Your task to perform on an android device: Open location settings Image 0: 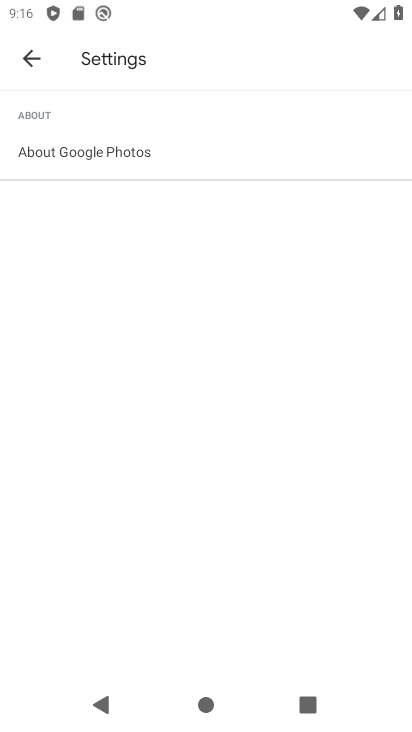
Step 0: press back button
Your task to perform on an android device: Open location settings Image 1: 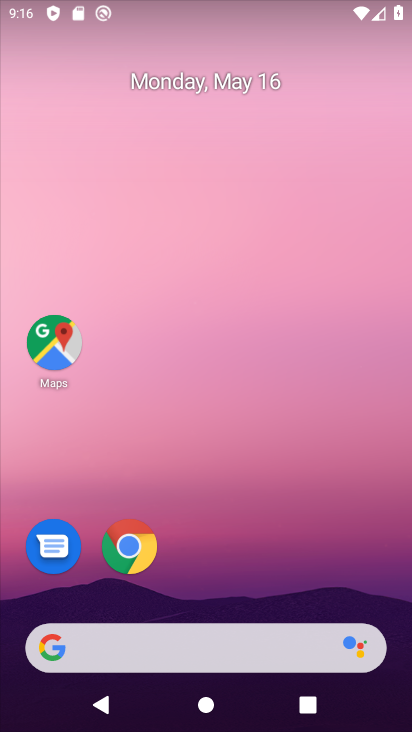
Step 1: drag from (273, 567) to (261, 238)
Your task to perform on an android device: Open location settings Image 2: 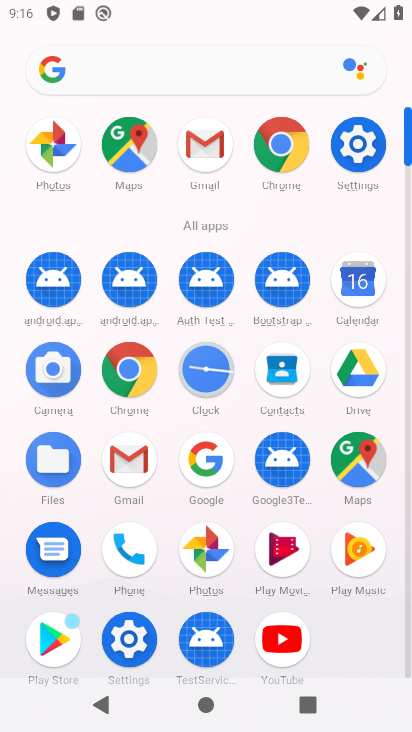
Step 2: click (359, 145)
Your task to perform on an android device: Open location settings Image 3: 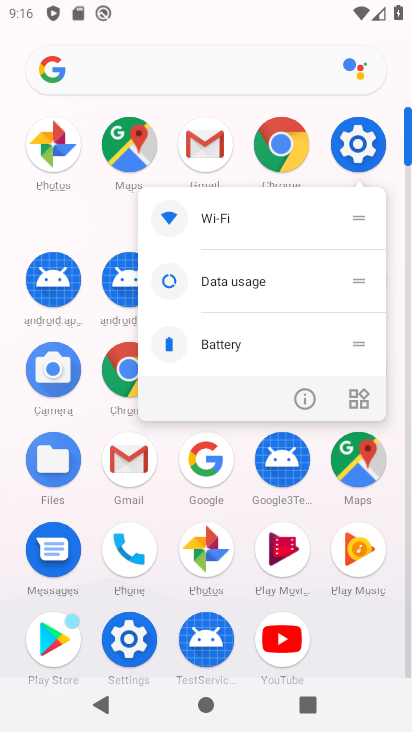
Step 3: click (359, 145)
Your task to perform on an android device: Open location settings Image 4: 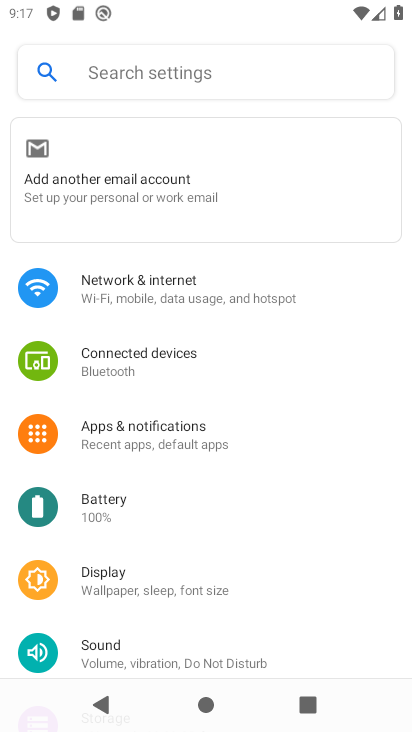
Step 4: drag from (170, 498) to (226, 426)
Your task to perform on an android device: Open location settings Image 5: 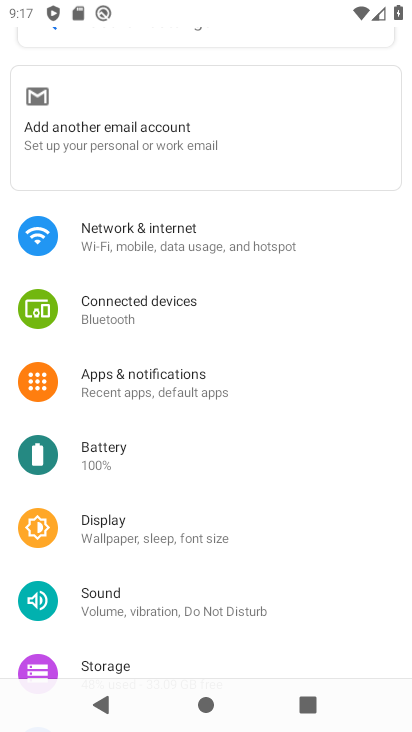
Step 5: drag from (179, 510) to (228, 438)
Your task to perform on an android device: Open location settings Image 6: 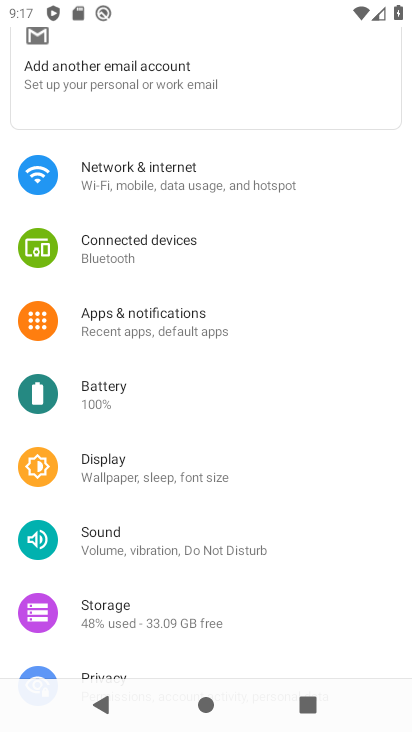
Step 6: drag from (147, 513) to (197, 431)
Your task to perform on an android device: Open location settings Image 7: 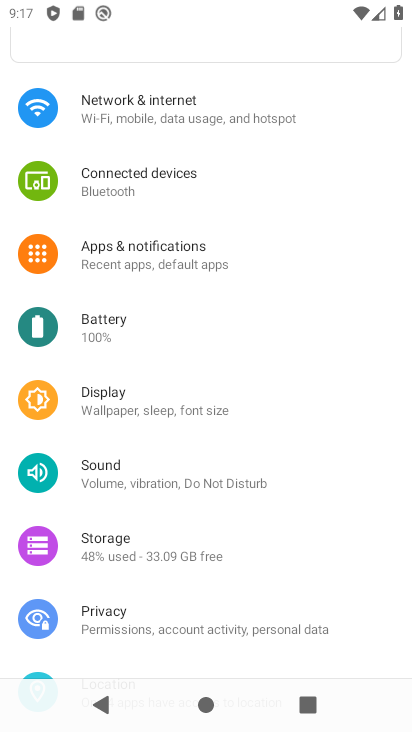
Step 7: drag from (126, 513) to (186, 437)
Your task to perform on an android device: Open location settings Image 8: 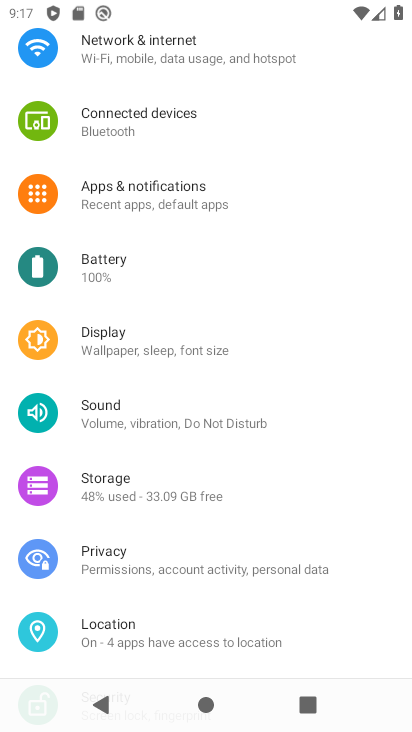
Step 8: drag from (130, 528) to (220, 435)
Your task to perform on an android device: Open location settings Image 9: 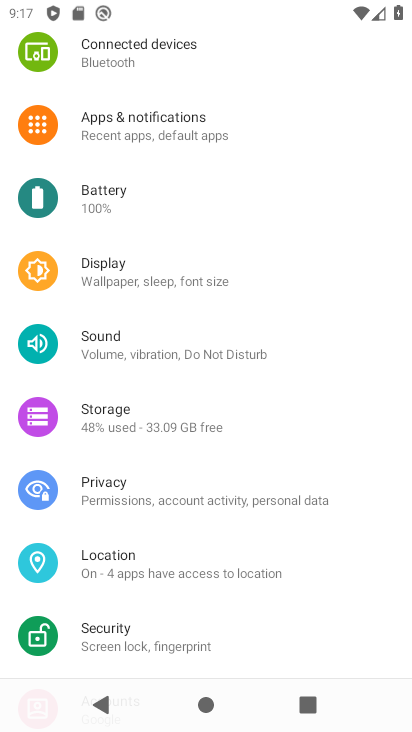
Step 9: click (123, 566)
Your task to perform on an android device: Open location settings Image 10: 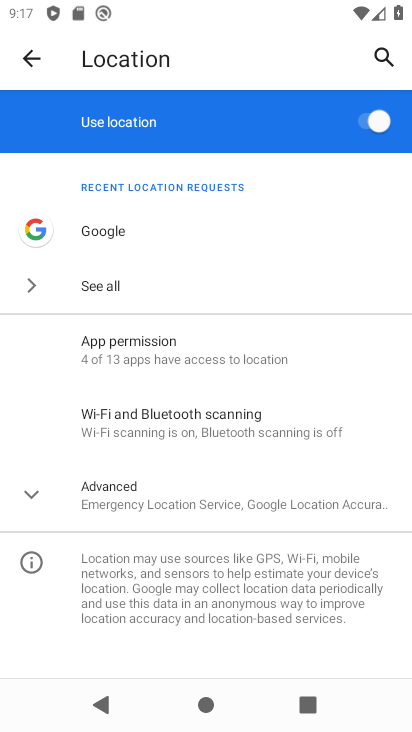
Step 10: task complete